Your task to perform on an android device: Open the calendar and show me this week's events? Image 0: 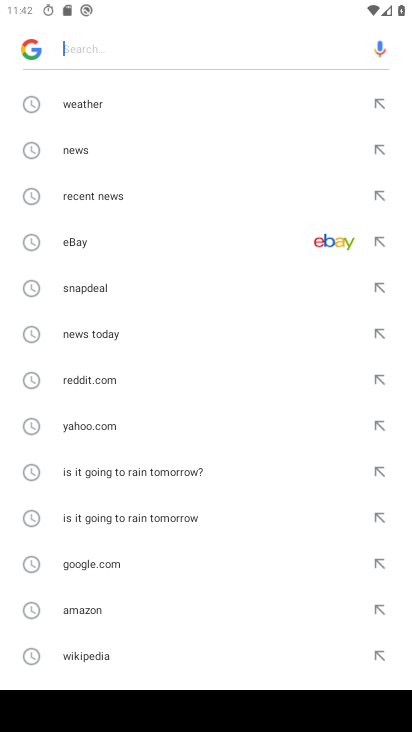
Step 0: press home button
Your task to perform on an android device: Open the calendar and show me this week's events? Image 1: 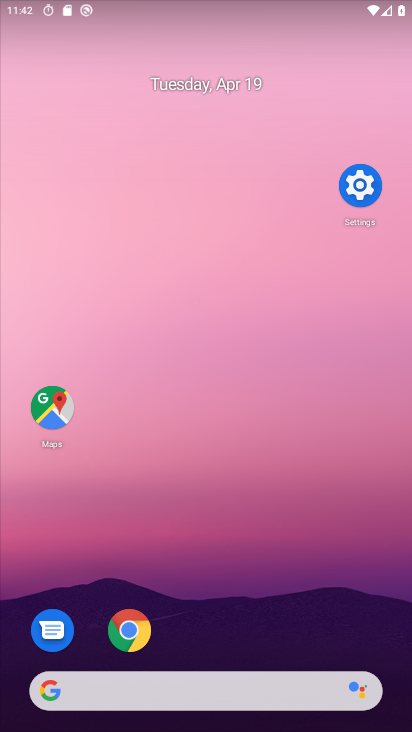
Step 1: drag from (280, 480) to (321, 12)
Your task to perform on an android device: Open the calendar and show me this week's events? Image 2: 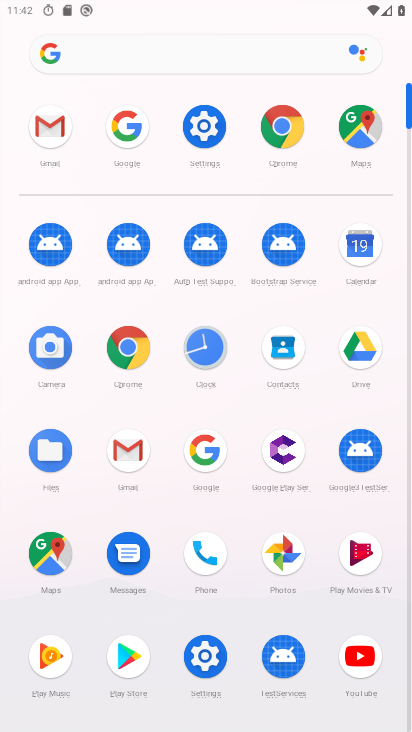
Step 2: click (363, 249)
Your task to perform on an android device: Open the calendar and show me this week's events? Image 3: 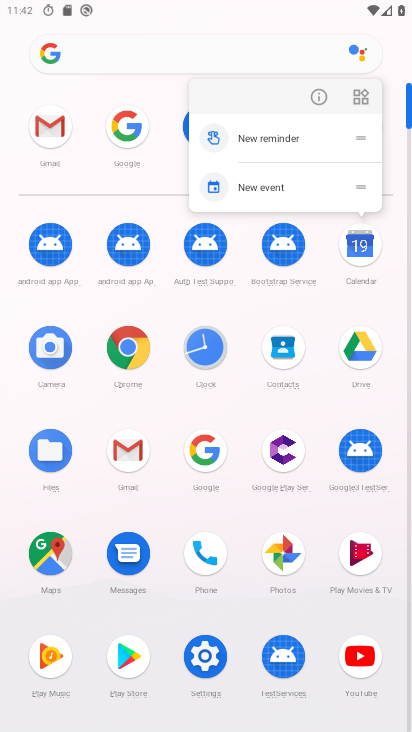
Step 3: click (360, 261)
Your task to perform on an android device: Open the calendar and show me this week's events? Image 4: 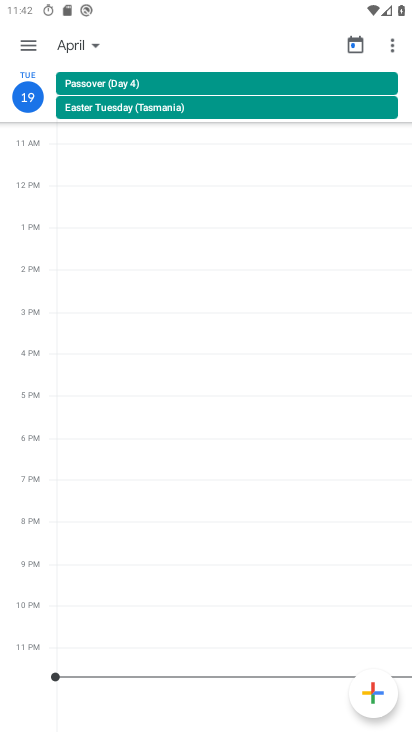
Step 4: click (107, 50)
Your task to perform on an android device: Open the calendar and show me this week's events? Image 5: 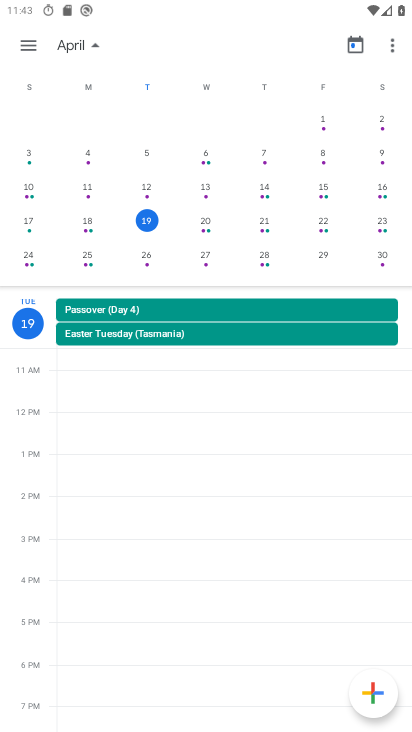
Step 5: task complete